Your task to perform on an android device: Open Google Chrome and click the shortcut for Amazon.com Image 0: 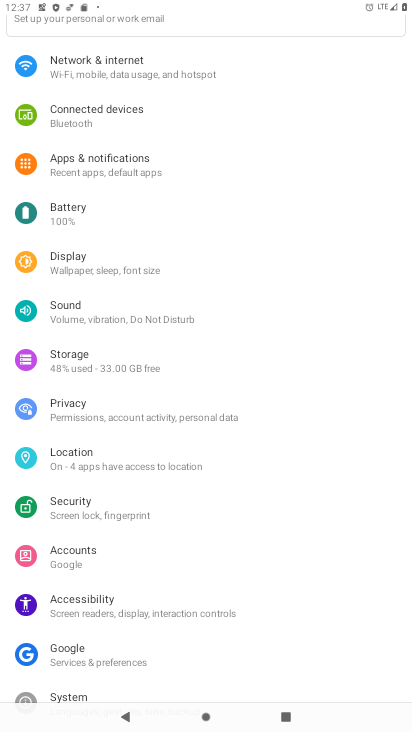
Step 0: press home button
Your task to perform on an android device: Open Google Chrome and click the shortcut for Amazon.com Image 1: 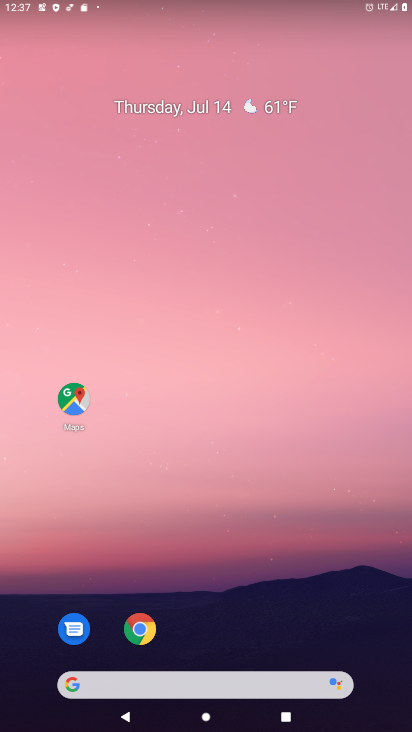
Step 1: click (147, 627)
Your task to perform on an android device: Open Google Chrome and click the shortcut for Amazon.com Image 2: 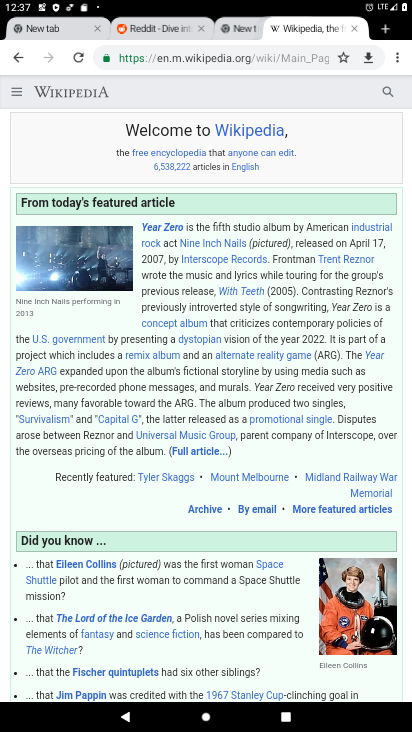
Step 2: click (397, 57)
Your task to perform on an android device: Open Google Chrome and click the shortcut for Amazon.com Image 3: 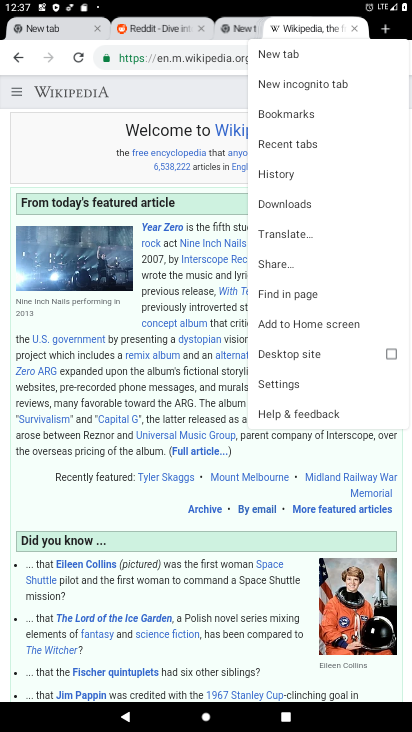
Step 3: click (279, 56)
Your task to perform on an android device: Open Google Chrome and click the shortcut for Amazon.com Image 4: 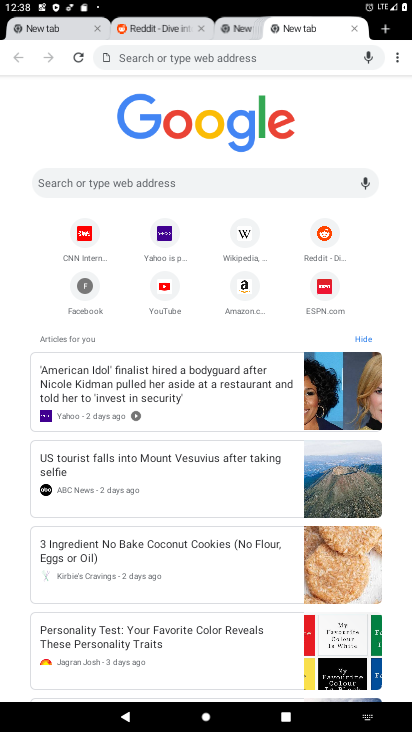
Step 4: click (244, 283)
Your task to perform on an android device: Open Google Chrome and click the shortcut for Amazon.com Image 5: 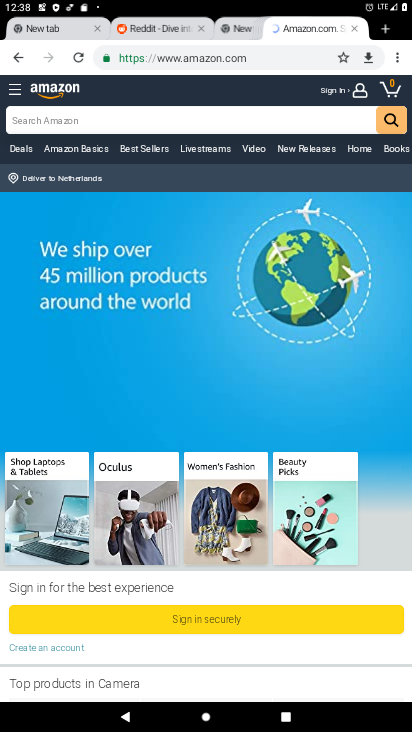
Step 5: task complete